Your task to perform on an android device: delete browsing data in the chrome app Image 0: 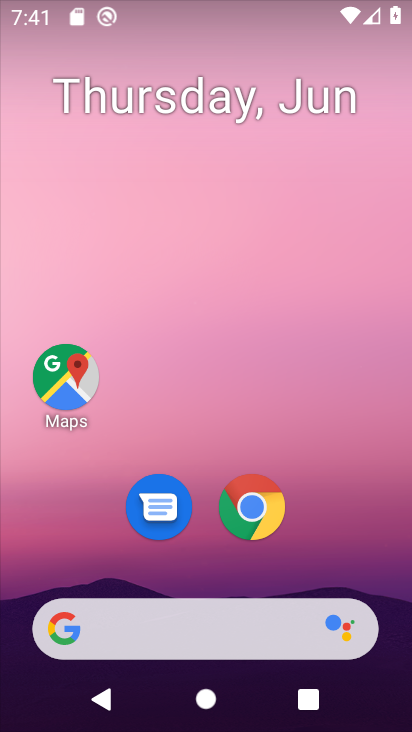
Step 0: click (253, 509)
Your task to perform on an android device: delete browsing data in the chrome app Image 1: 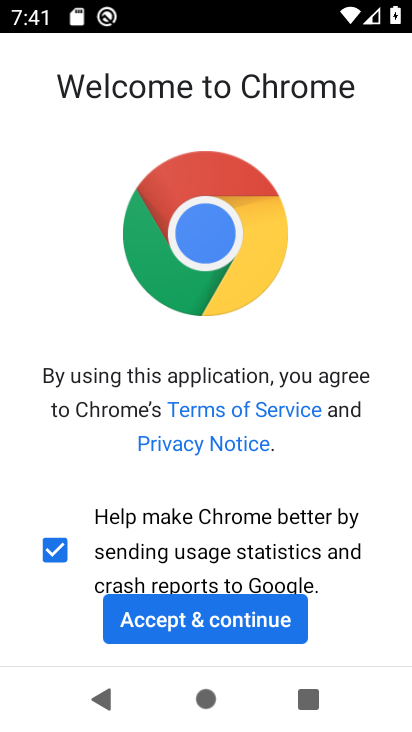
Step 1: click (225, 606)
Your task to perform on an android device: delete browsing data in the chrome app Image 2: 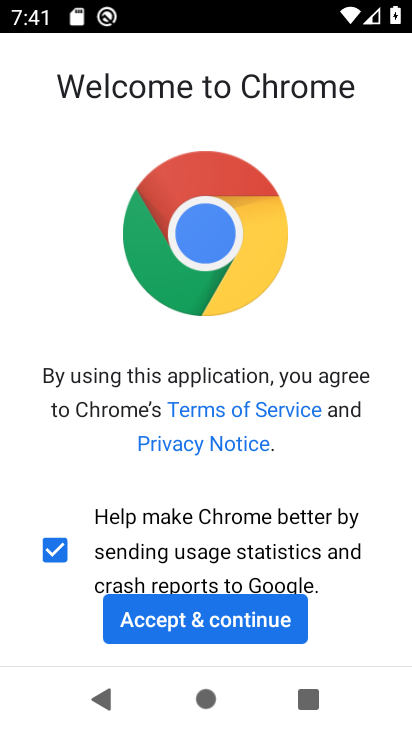
Step 2: click (230, 622)
Your task to perform on an android device: delete browsing data in the chrome app Image 3: 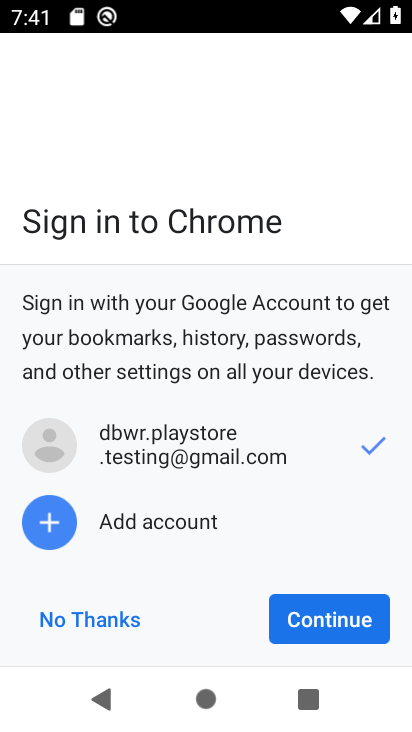
Step 3: click (290, 608)
Your task to perform on an android device: delete browsing data in the chrome app Image 4: 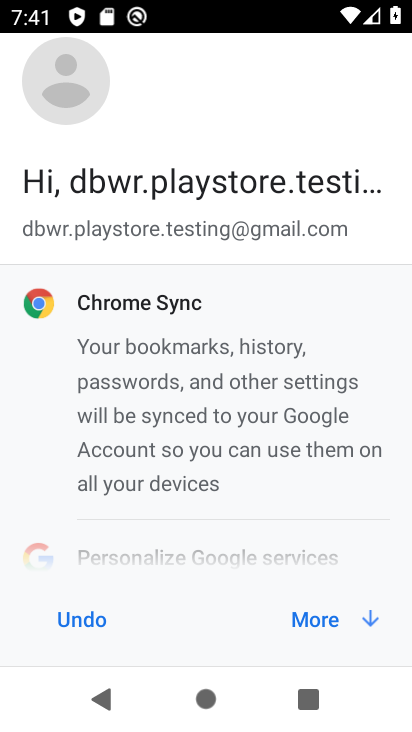
Step 4: click (289, 605)
Your task to perform on an android device: delete browsing data in the chrome app Image 5: 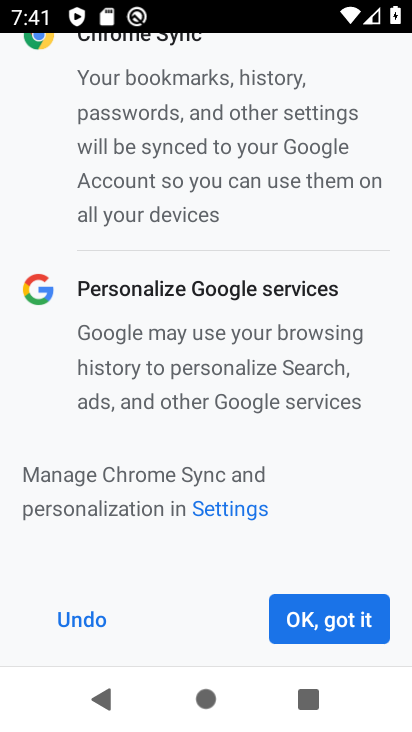
Step 5: click (289, 605)
Your task to perform on an android device: delete browsing data in the chrome app Image 6: 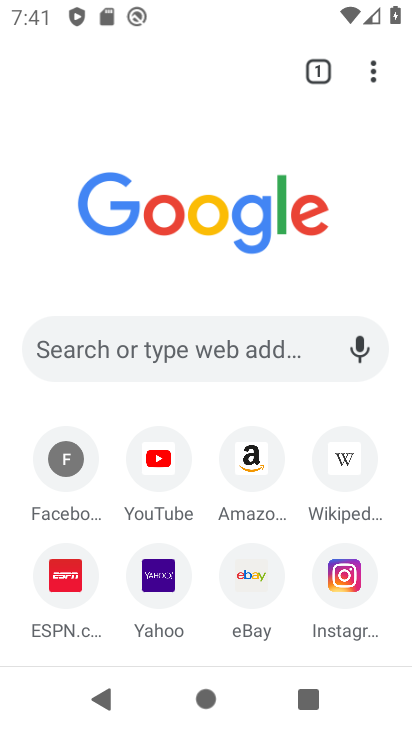
Step 6: click (382, 64)
Your task to perform on an android device: delete browsing data in the chrome app Image 7: 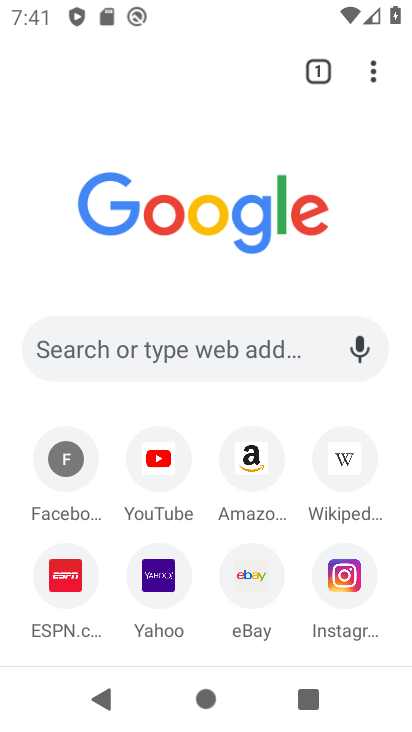
Step 7: task complete